Your task to perform on an android device: clear history in the chrome app Image 0: 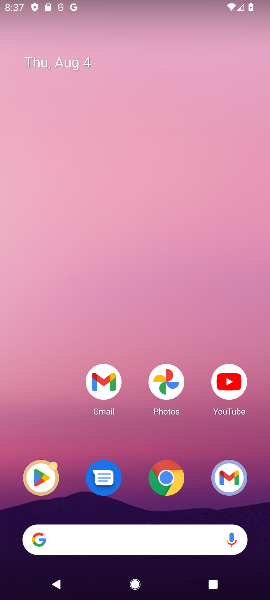
Step 0: press home button
Your task to perform on an android device: clear history in the chrome app Image 1: 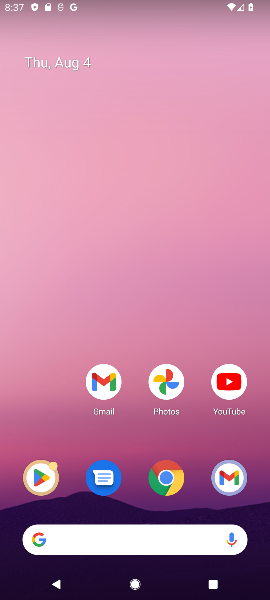
Step 1: drag from (150, 548) to (180, 107)
Your task to perform on an android device: clear history in the chrome app Image 2: 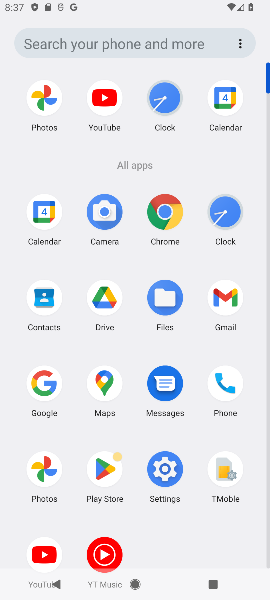
Step 2: click (168, 192)
Your task to perform on an android device: clear history in the chrome app Image 3: 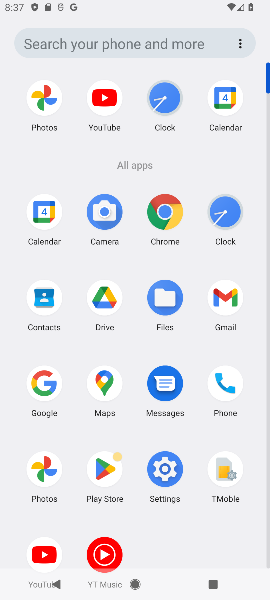
Step 3: click (168, 192)
Your task to perform on an android device: clear history in the chrome app Image 4: 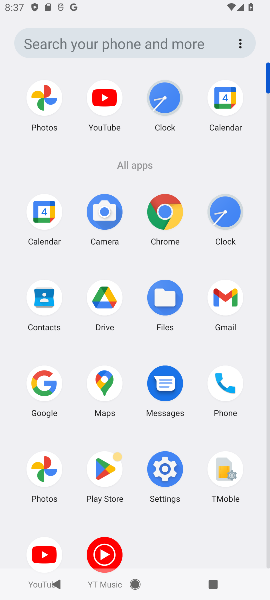
Step 4: click (168, 195)
Your task to perform on an android device: clear history in the chrome app Image 5: 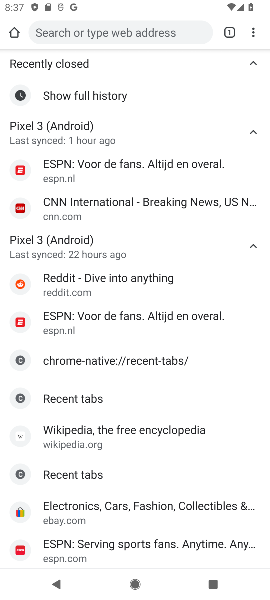
Step 5: drag from (250, 25) to (156, 272)
Your task to perform on an android device: clear history in the chrome app Image 6: 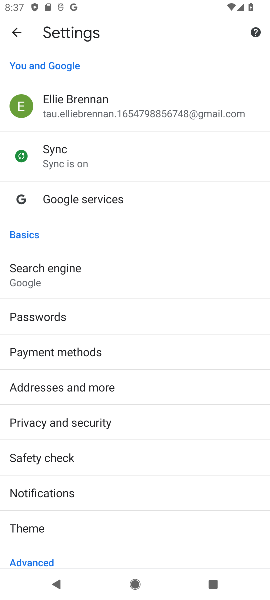
Step 6: press back button
Your task to perform on an android device: clear history in the chrome app Image 7: 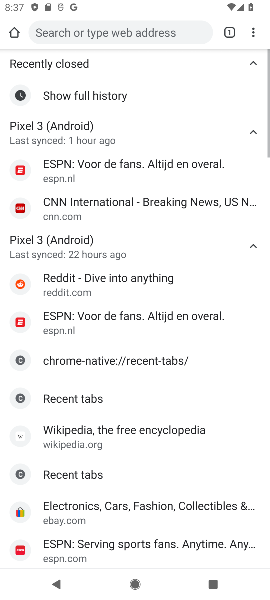
Step 7: drag from (250, 32) to (173, 123)
Your task to perform on an android device: clear history in the chrome app Image 8: 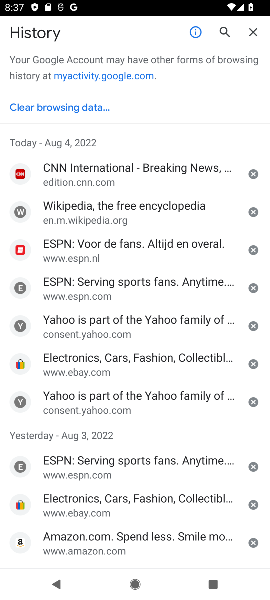
Step 8: click (70, 100)
Your task to perform on an android device: clear history in the chrome app Image 9: 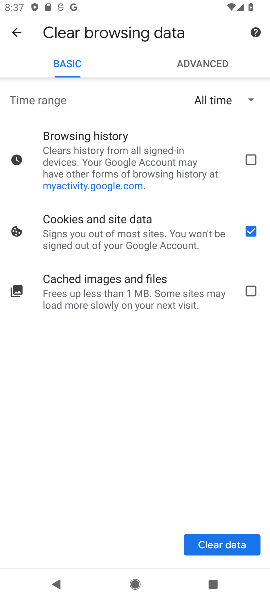
Step 9: click (250, 151)
Your task to perform on an android device: clear history in the chrome app Image 10: 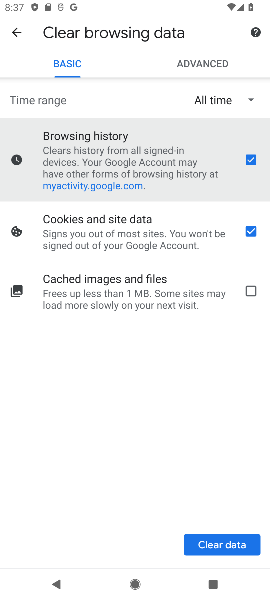
Step 10: click (250, 232)
Your task to perform on an android device: clear history in the chrome app Image 11: 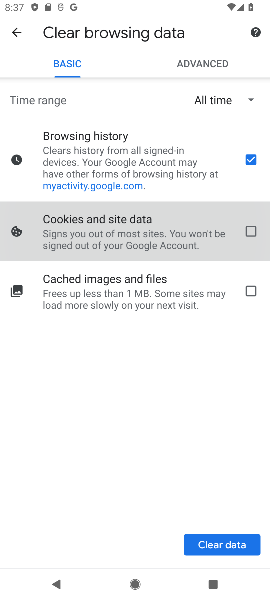
Step 11: click (204, 552)
Your task to perform on an android device: clear history in the chrome app Image 12: 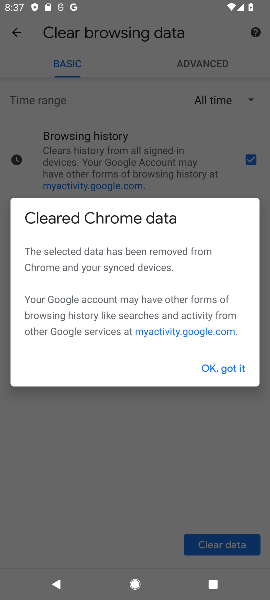
Step 12: click (220, 377)
Your task to perform on an android device: clear history in the chrome app Image 13: 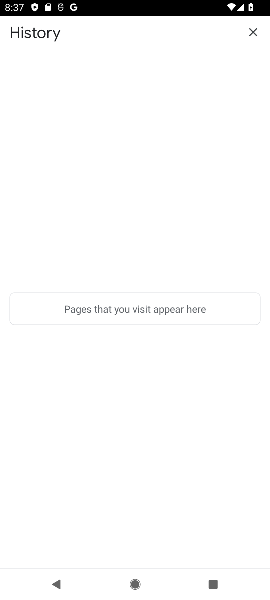
Step 13: task complete